Your task to perform on an android device: move a message to another label in the gmail app Image 0: 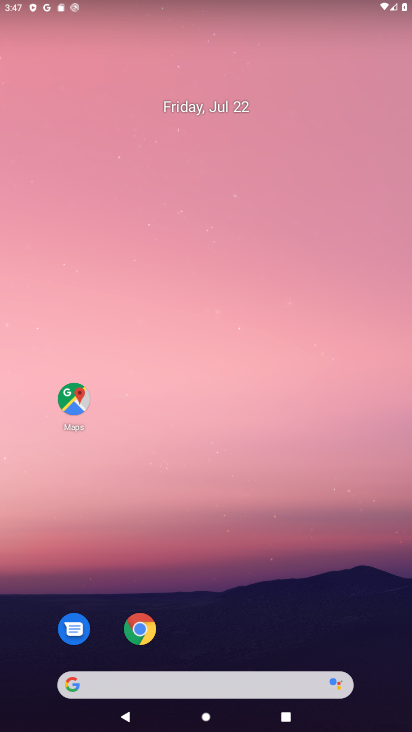
Step 0: press home button
Your task to perform on an android device: move a message to another label in the gmail app Image 1: 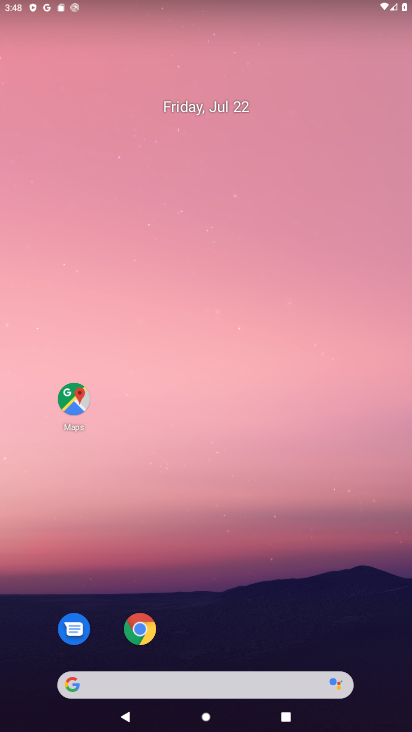
Step 1: drag from (220, 704) to (319, 126)
Your task to perform on an android device: move a message to another label in the gmail app Image 2: 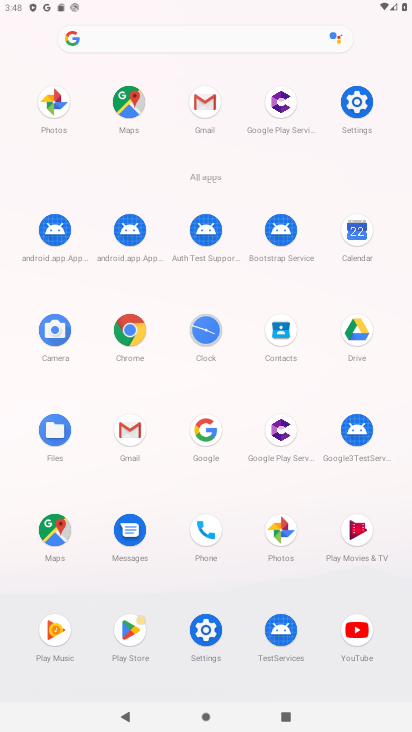
Step 2: click (123, 445)
Your task to perform on an android device: move a message to another label in the gmail app Image 3: 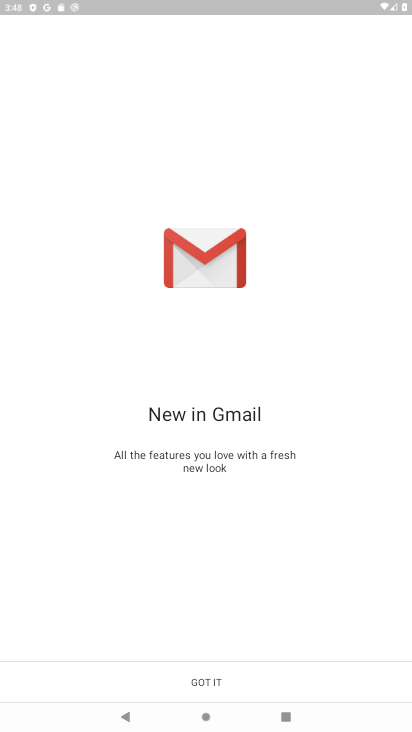
Step 3: click (199, 689)
Your task to perform on an android device: move a message to another label in the gmail app Image 4: 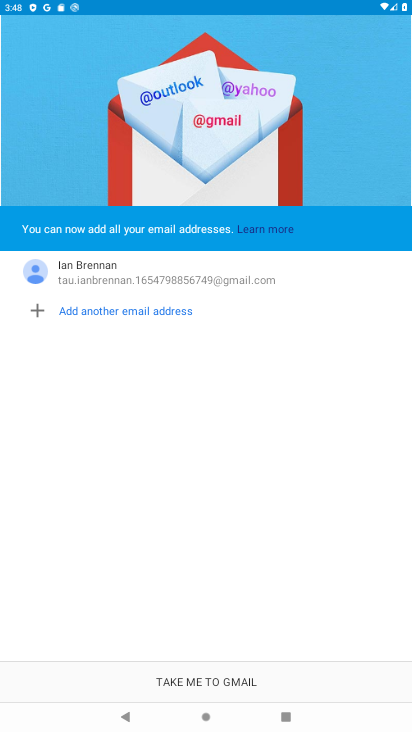
Step 4: click (304, 686)
Your task to perform on an android device: move a message to another label in the gmail app Image 5: 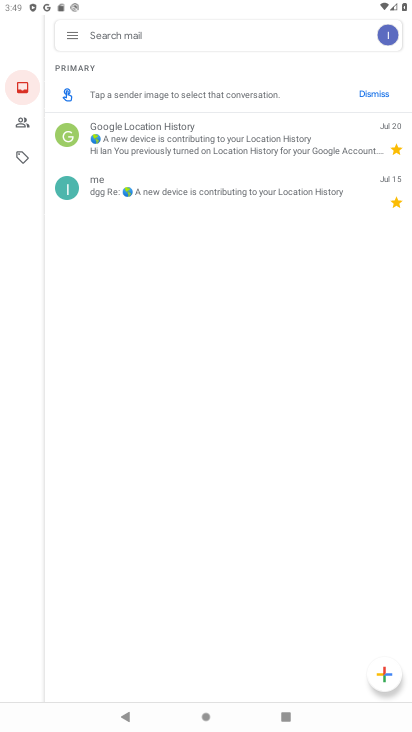
Step 5: click (201, 141)
Your task to perform on an android device: move a message to another label in the gmail app Image 6: 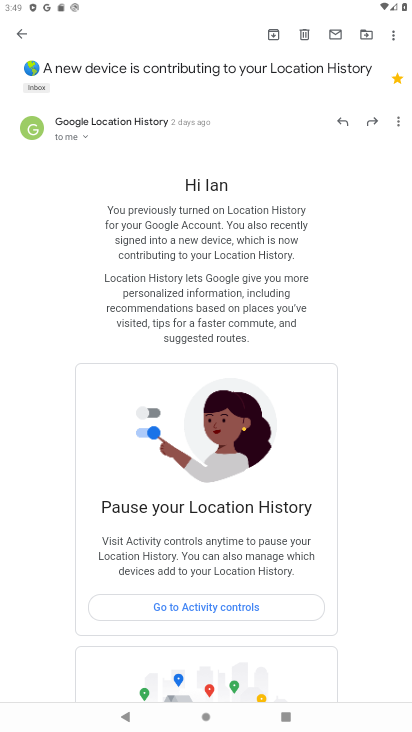
Step 6: click (391, 42)
Your task to perform on an android device: move a message to another label in the gmail app Image 7: 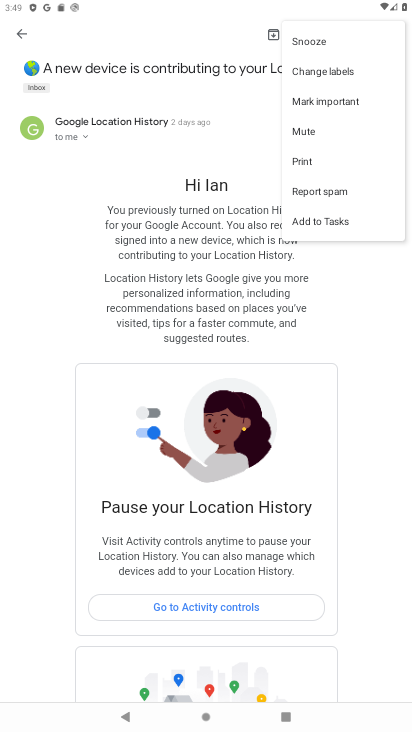
Step 7: click (333, 76)
Your task to perform on an android device: move a message to another label in the gmail app Image 8: 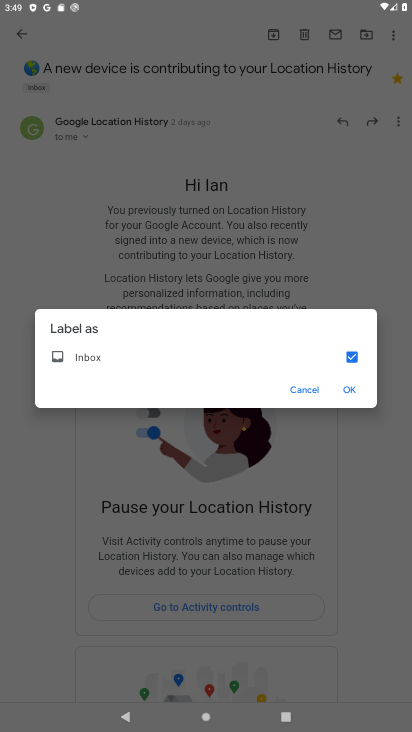
Step 8: click (351, 392)
Your task to perform on an android device: move a message to another label in the gmail app Image 9: 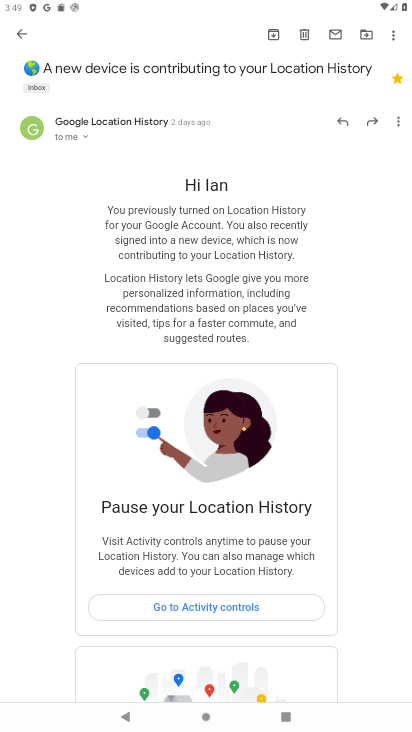
Step 9: task complete